Your task to perform on an android device: turn on improve location accuracy Image 0: 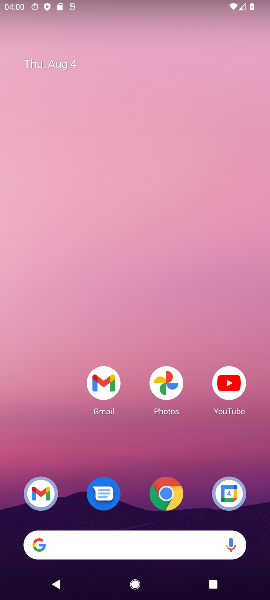
Step 0: drag from (1, 569) to (175, 169)
Your task to perform on an android device: turn on improve location accuracy Image 1: 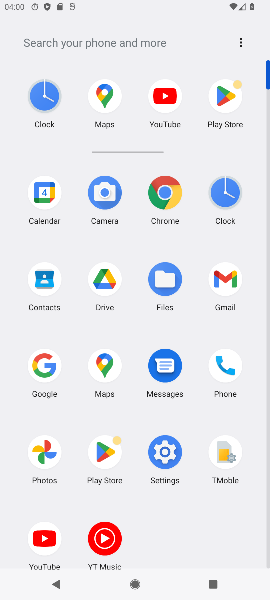
Step 1: click (171, 460)
Your task to perform on an android device: turn on improve location accuracy Image 2: 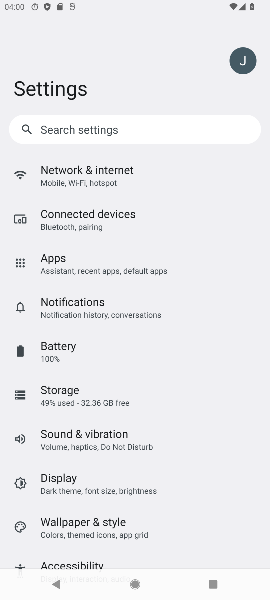
Step 2: drag from (125, 515) to (129, 206)
Your task to perform on an android device: turn on improve location accuracy Image 3: 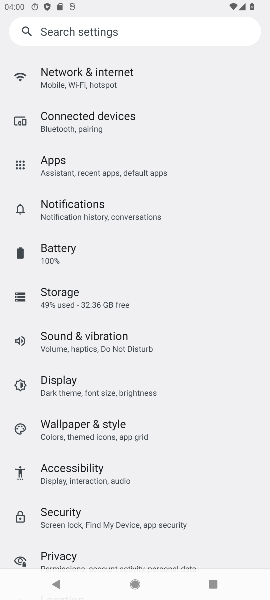
Step 3: drag from (111, 403) to (111, 254)
Your task to perform on an android device: turn on improve location accuracy Image 4: 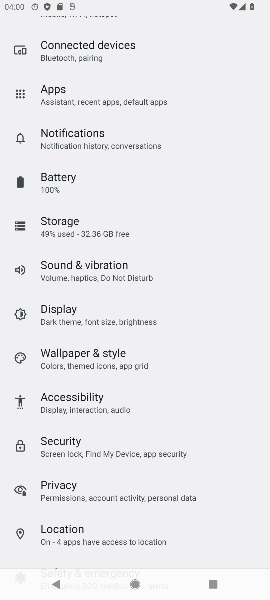
Step 4: click (63, 522)
Your task to perform on an android device: turn on improve location accuracy Image 5: 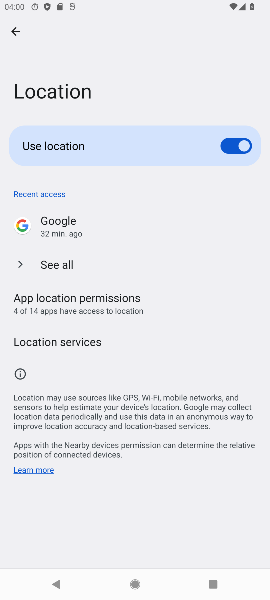
Step 5: click (70, 265)
Your task to perform on an android device: turn on improve location accuracy Image 6: 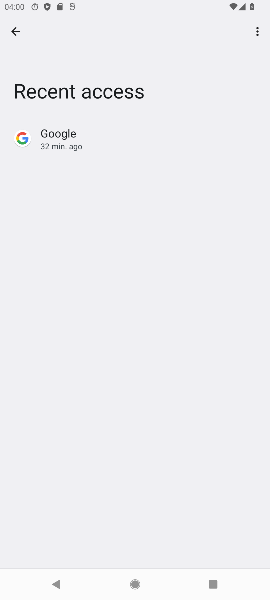
Step 6: click (12, 31)
Your task to perform on an android device: turn on improve location accuracy Image 7: 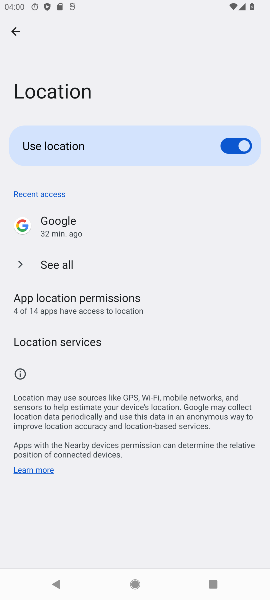
Step 7: click (75, 342)
Your task to perform on an android device: turn on improve location accuracy Image 8: 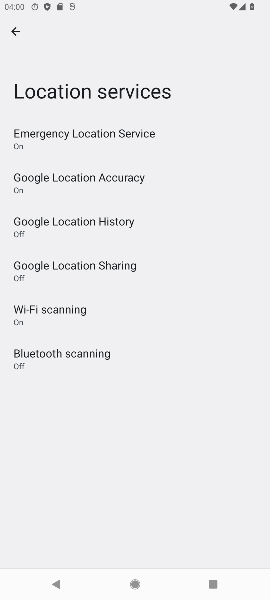
Step 8: task complete